Your task to perform on an android device: check storage Image 0: 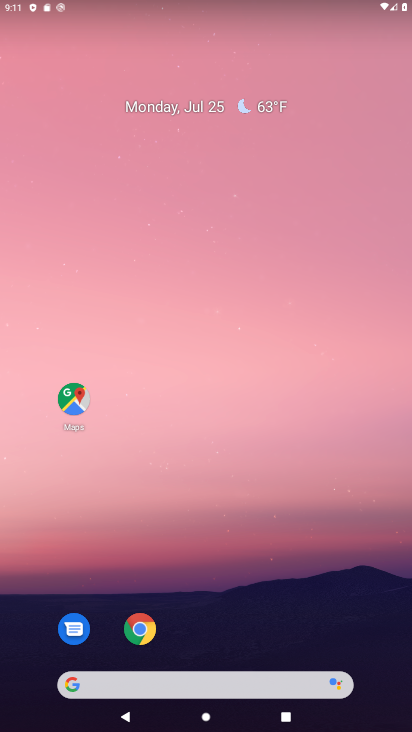
Step 0: drag from (267, 602) to (263, 113)
Your task to perform on an android device: check storage Image 1: 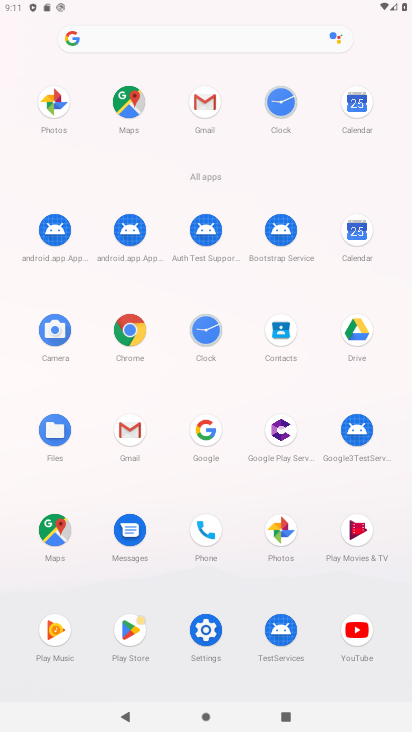
Step 1: click (200, 634)
Your task to perform on an android device: check storage Image 2: 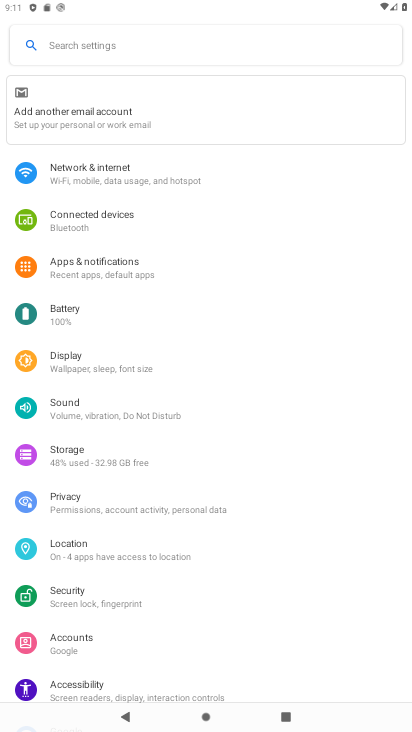
Step 2: click (133, 451)
Your task to perform on an android device: check storage Image 3: 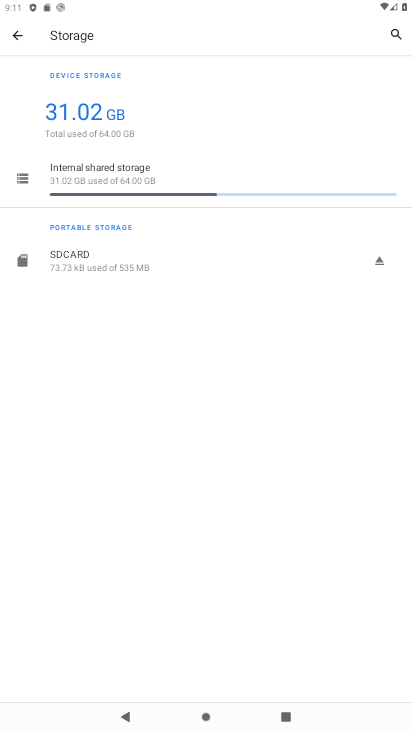
Step 3: task complete